Your task to perform on an android device: set the stopwatch Image 0: 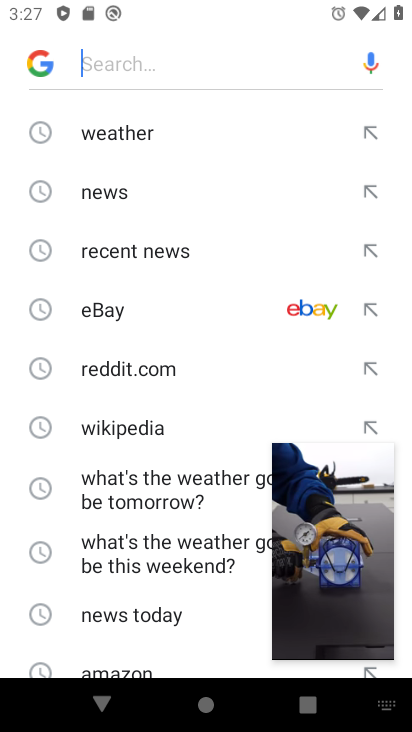
Step 0: press home button
Your task to perform on an android device: set the stopwatch Image 1: 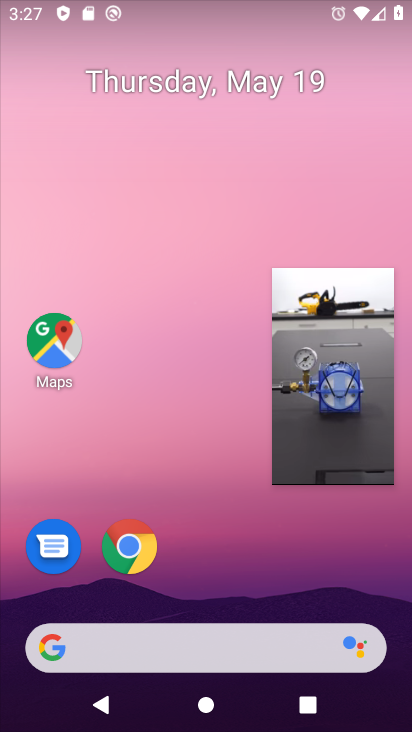
Step 1: drag from (222, 596) to (213, 74)
Your task to perform on an android device: set the stopwatch Image 2: 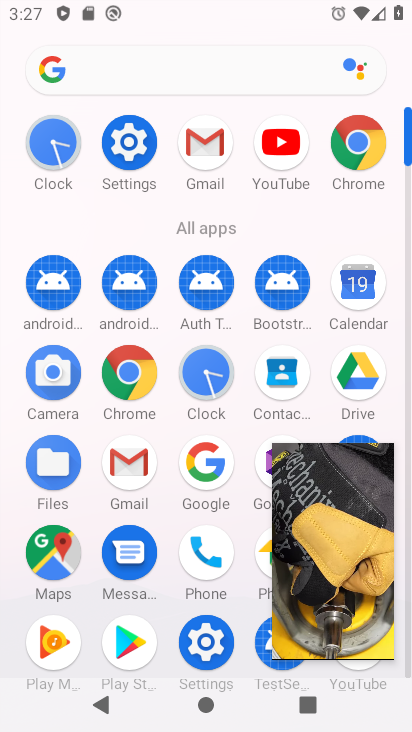
Step 2: click (368, 462)
Your task to perform on an android device: set the stopwatch Image 3: 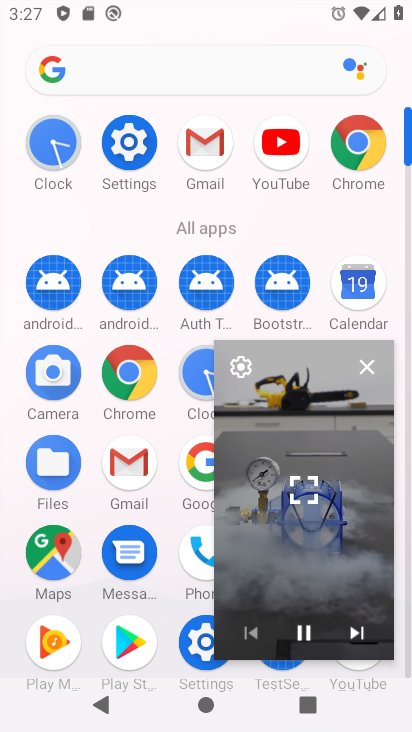
Step 3: click (367, 359)
Your task to perform on an android device: set the stopwatch Image 4: 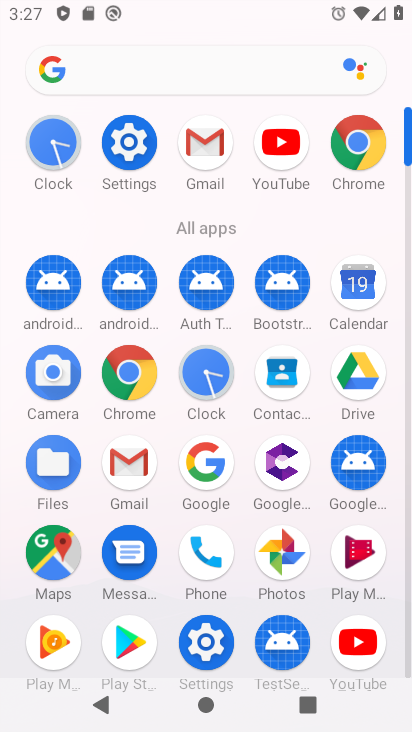
Step 4: click (209, 368)
Your task to perform on an android device: set the stopwatch Image 5: 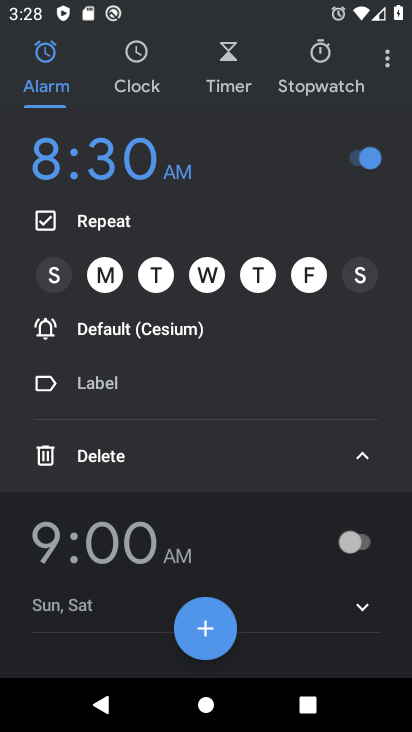
Step 5: click (320, 55)
Your task to perform on an android device: set the stopwatch Image 6: 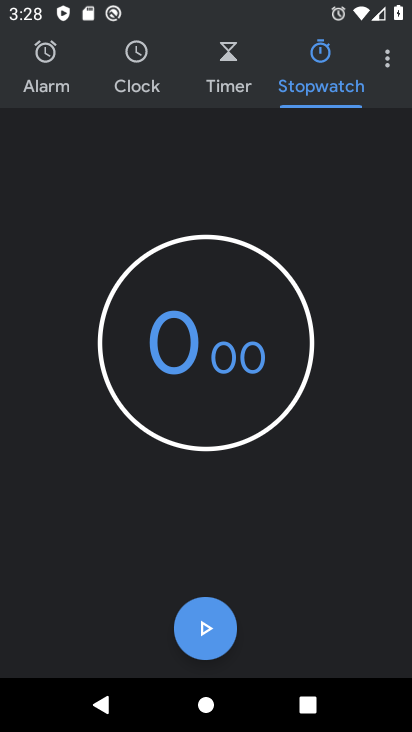
Step 6: click (204, 623)
Your task to perform on an android device: set the stopwatch Image 7: 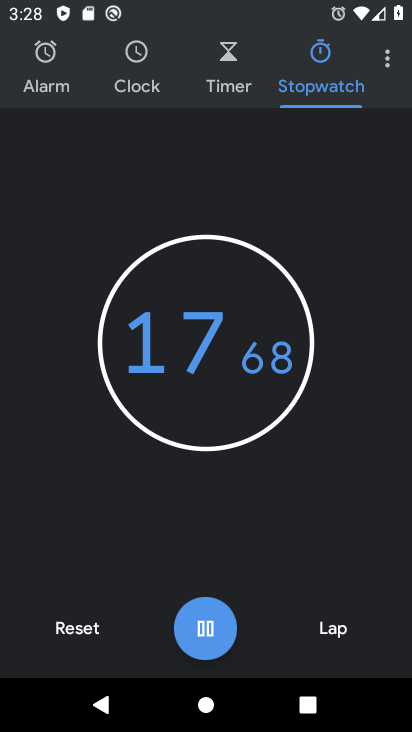
Step 7: click (84, 629)
Your task to perform on an android device: set the stopwatch Image 8: 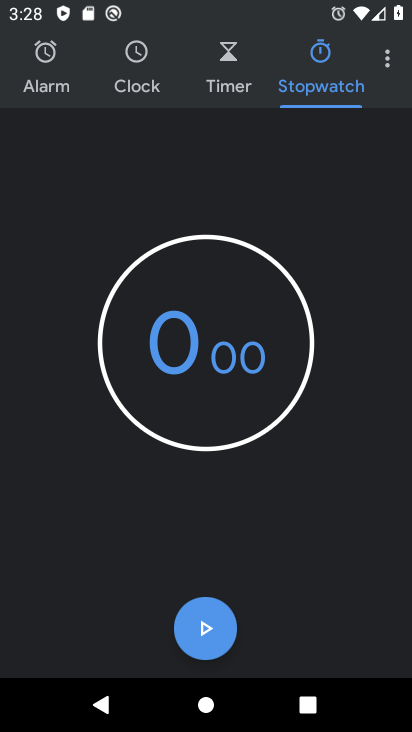
Step 8: task complete